Your task to perform on an android device: Add acer predator to the cart on target Image 0: 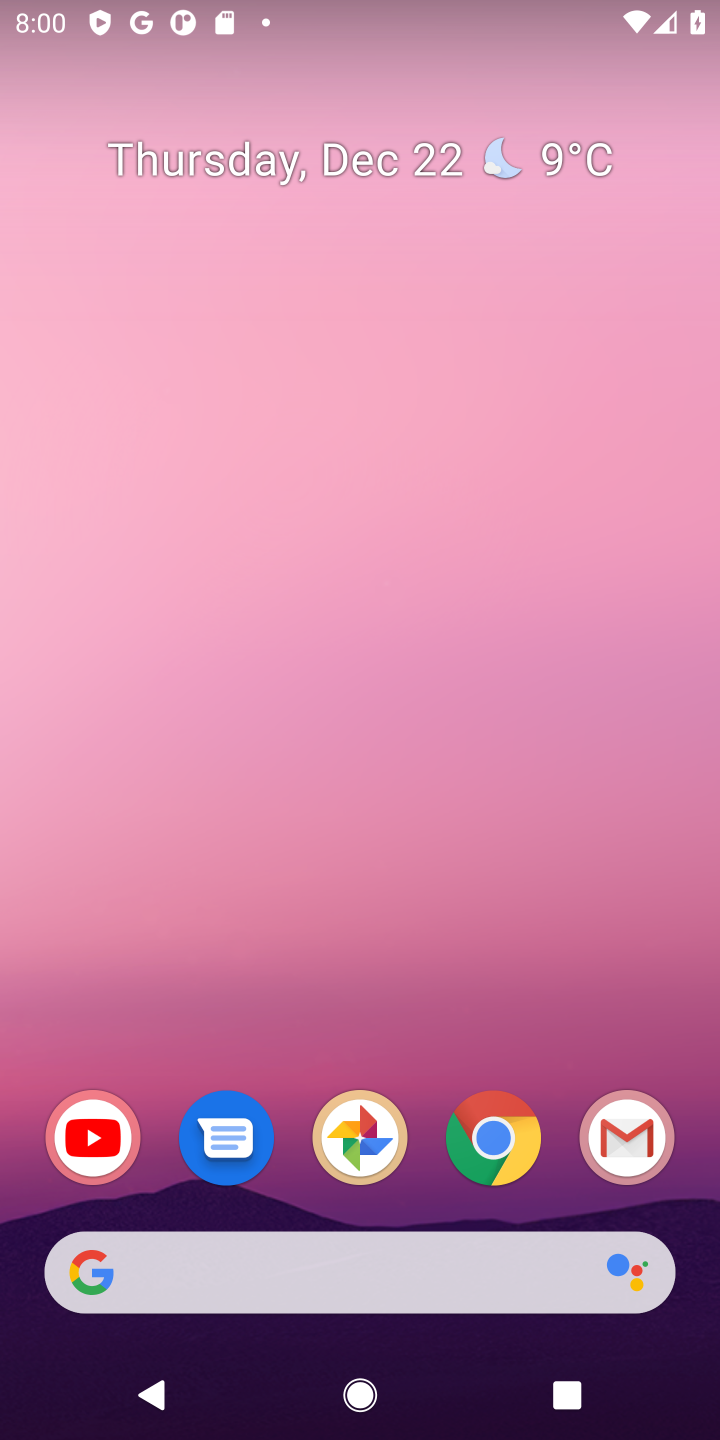
Step 0: press home button
Your task to perform on an android device: Add acer predator to the cart on target Image 1: 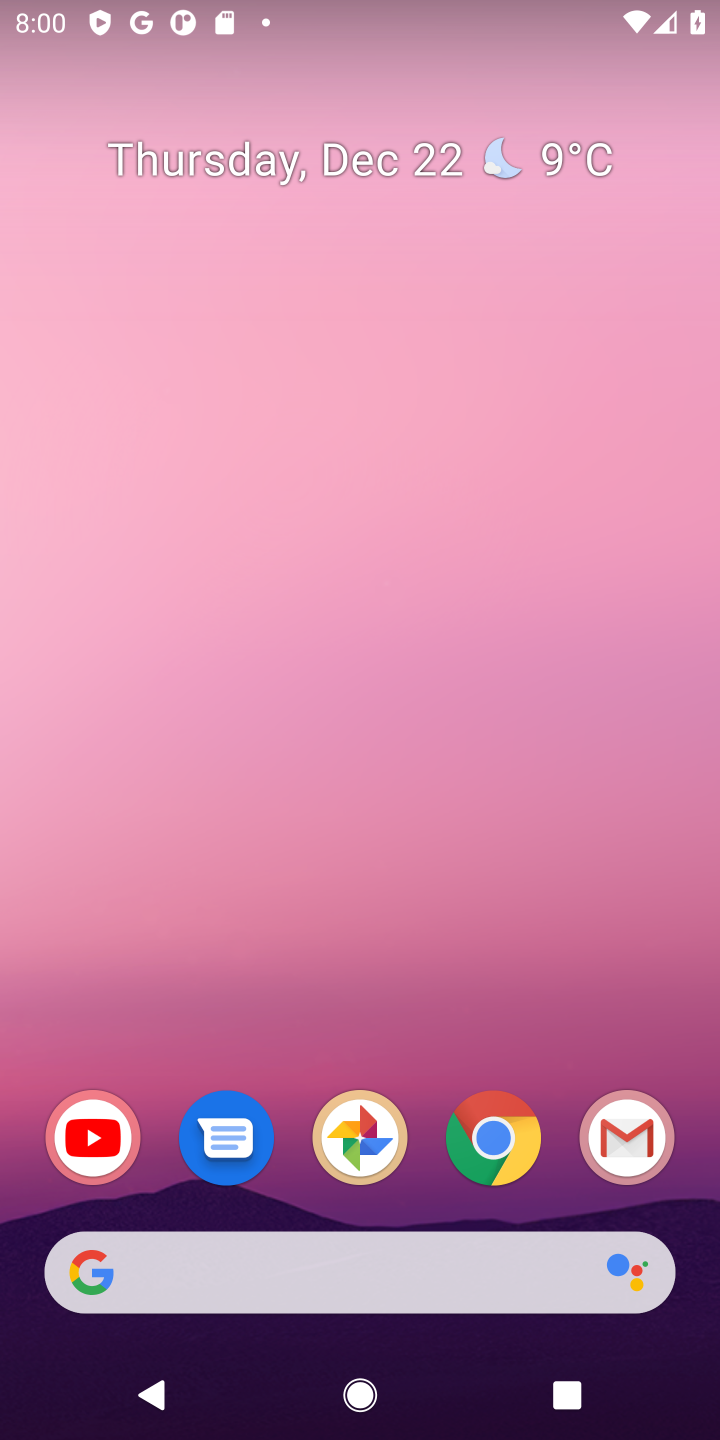
Step 1: click (523, 1145)
Your task to perform on an android device: Add acer predator to the cart on target Image 2: 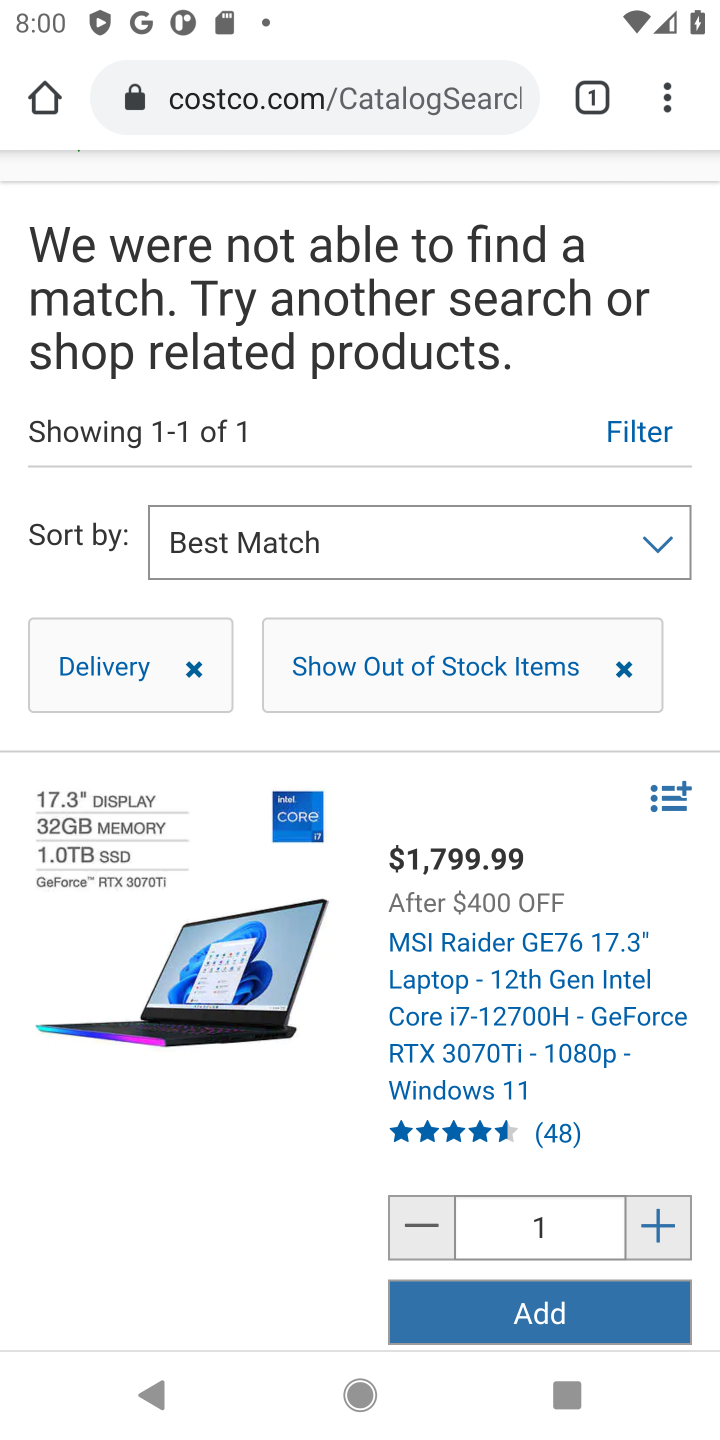
Step 2: click (269, 93)
Your task to perform on an android device: Add acer predator to the cart on target Image 3: 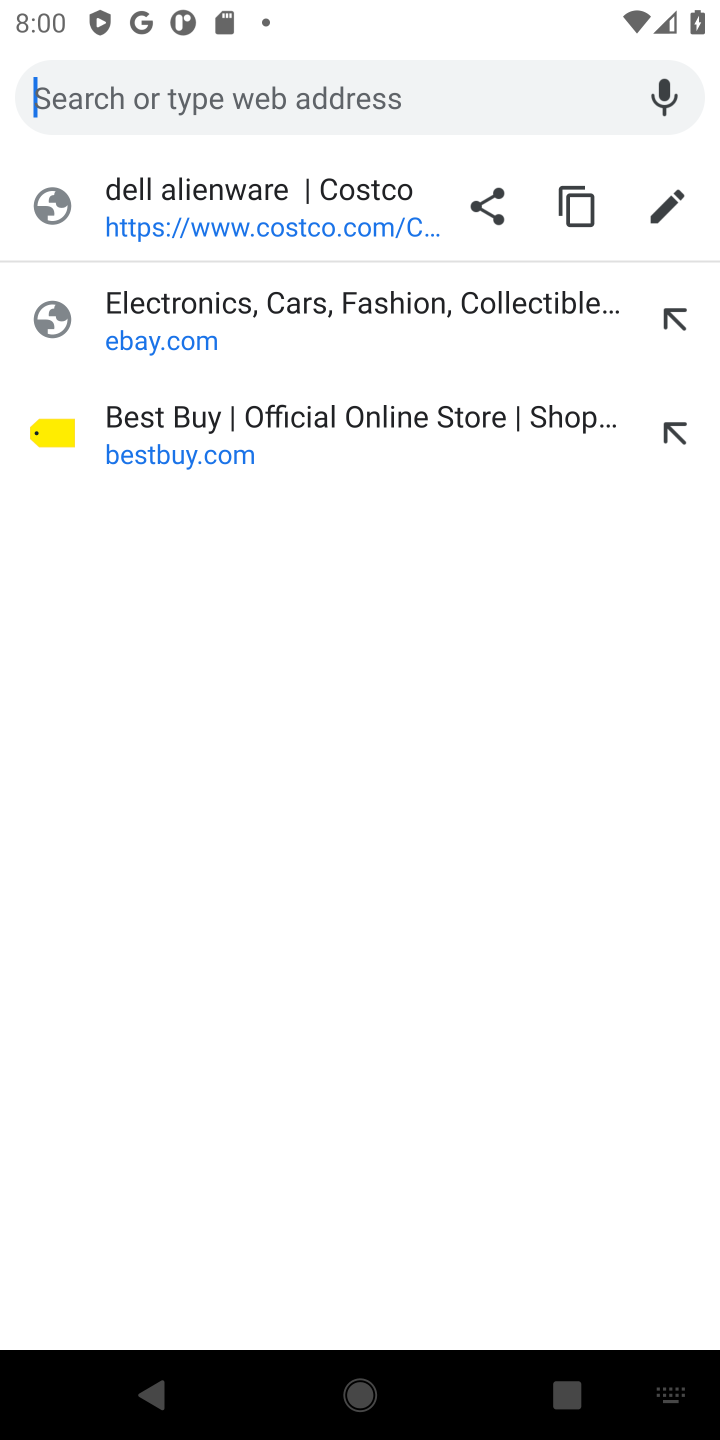
Step 3: type "target"
Your task to perform on an android device: Add acer predator to the cart on target Image 4: 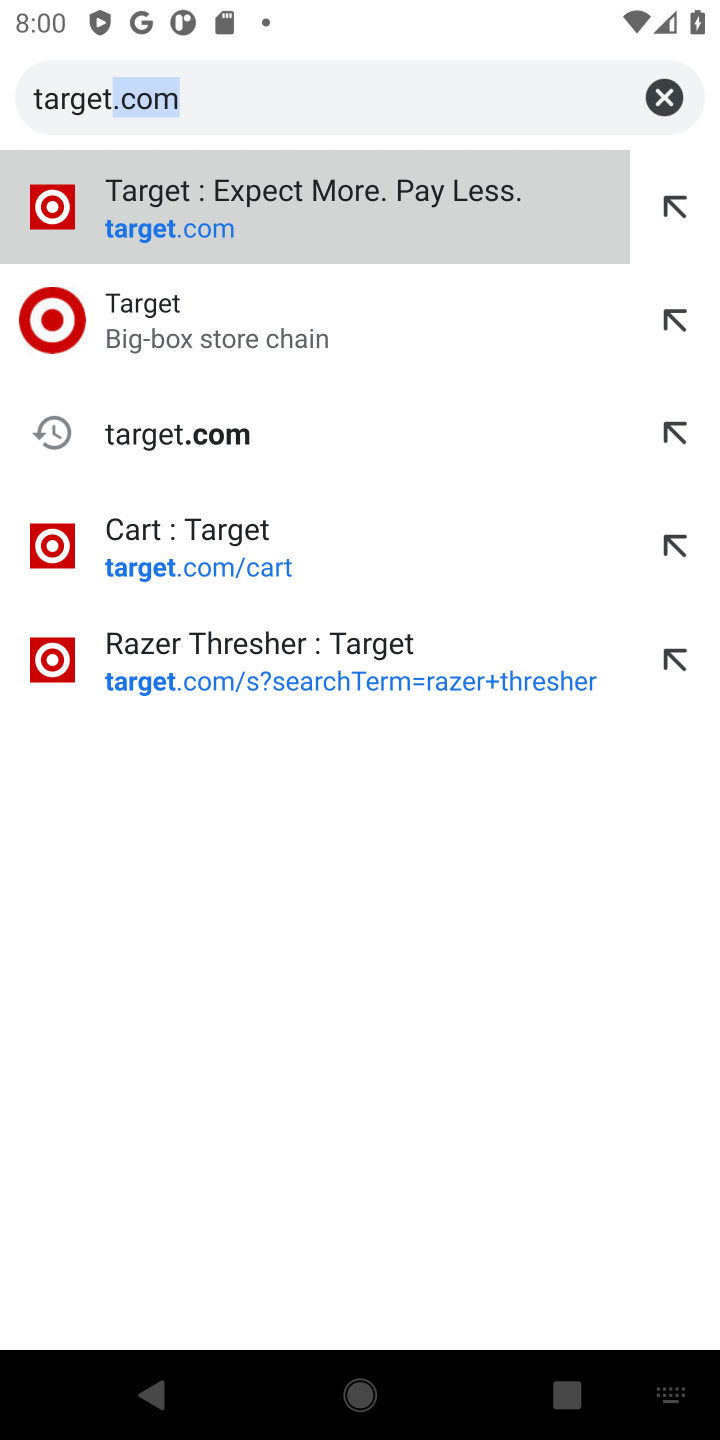
Step 4: click (293, 197)
Your task to perform on an android device: Add acer predator to the cart on target Image 5: 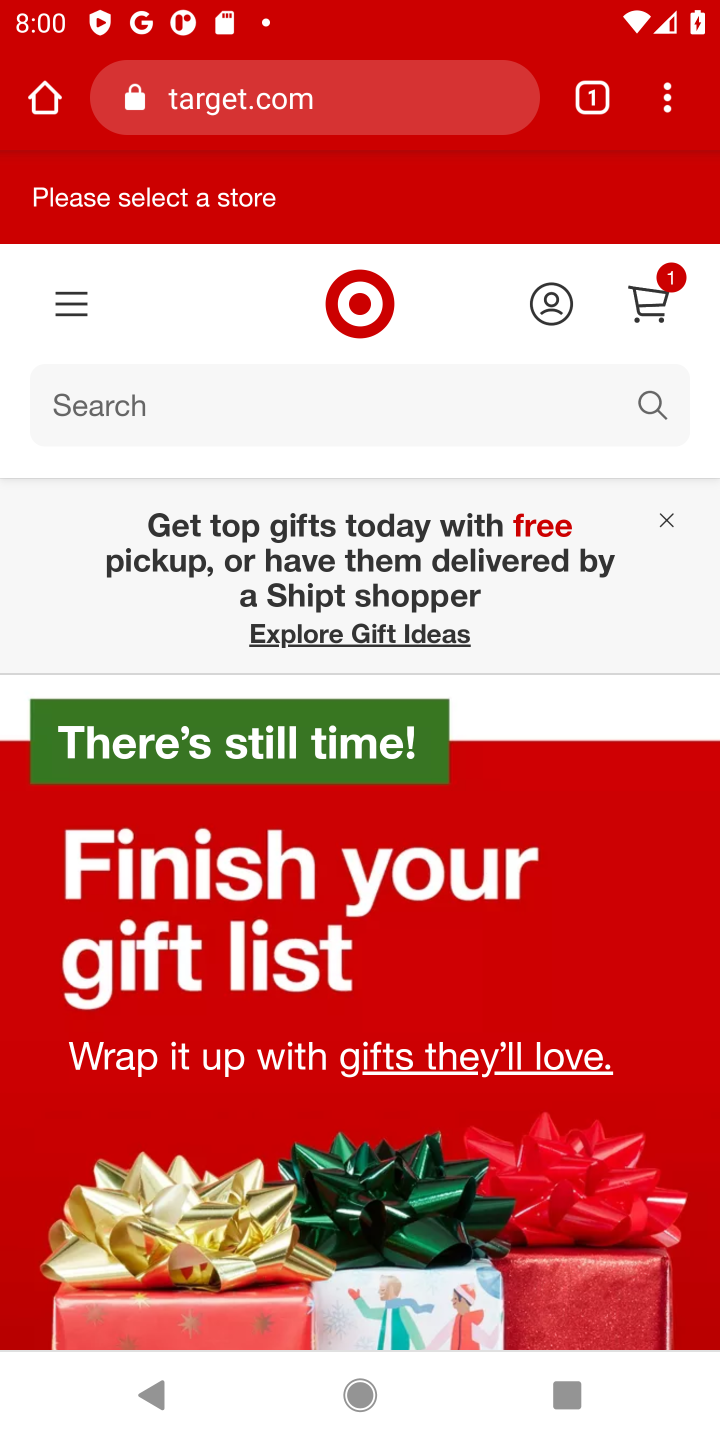
Step 5: click (243, 417)
Your task to perform on an android device: Add acer predator to the cart on target Image 6: 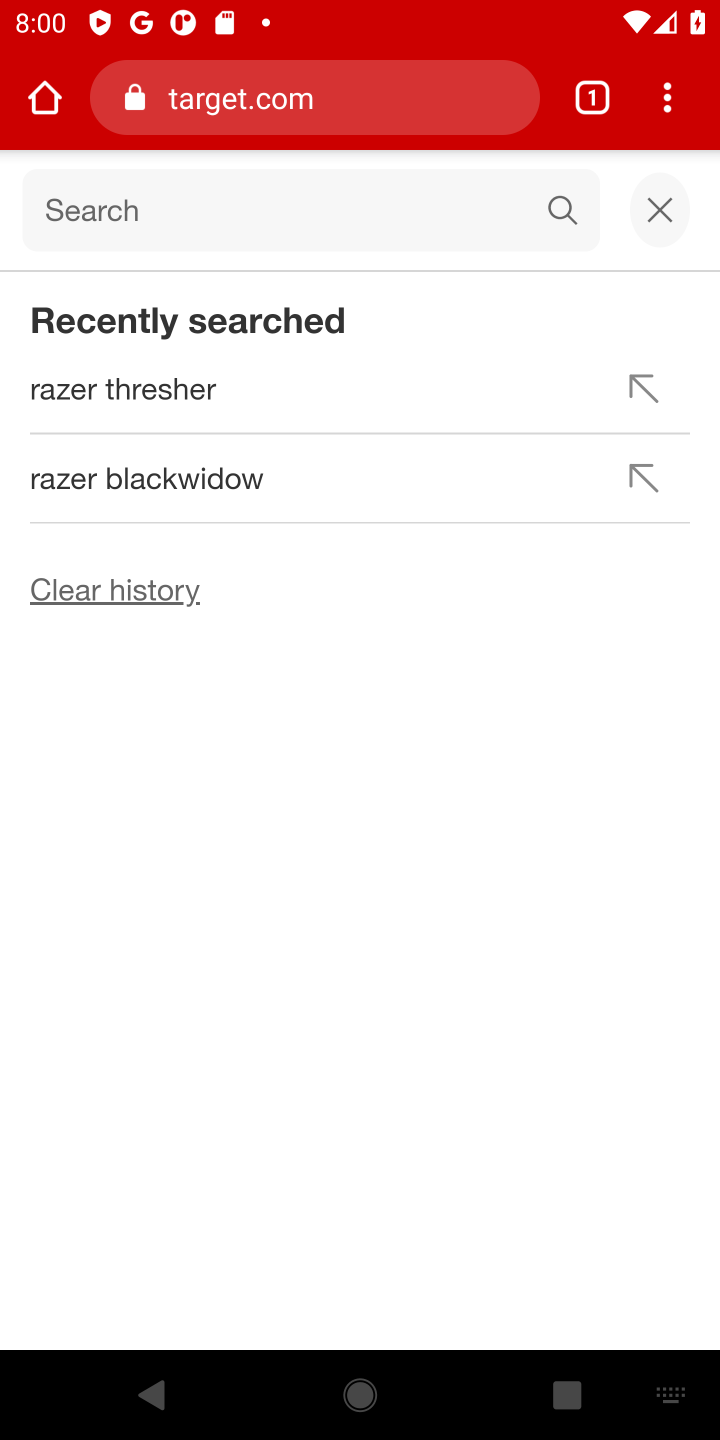
Step 6: type "acer predator"
Your task to perform on an android device: Add acer predator to the cart on target Image 7: 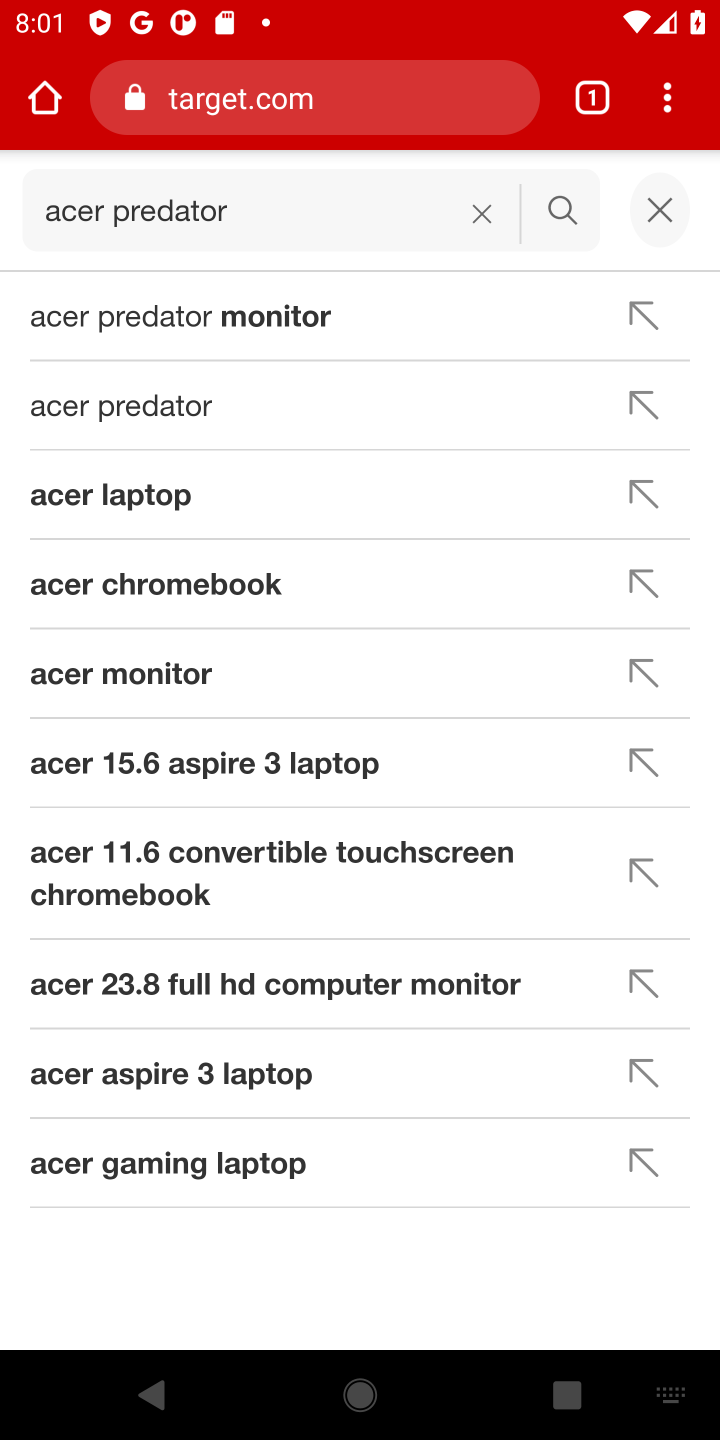
Step 7: click (561, 207)
Your task to perform on an android device: Add acer predator to the cart on target Image 8: 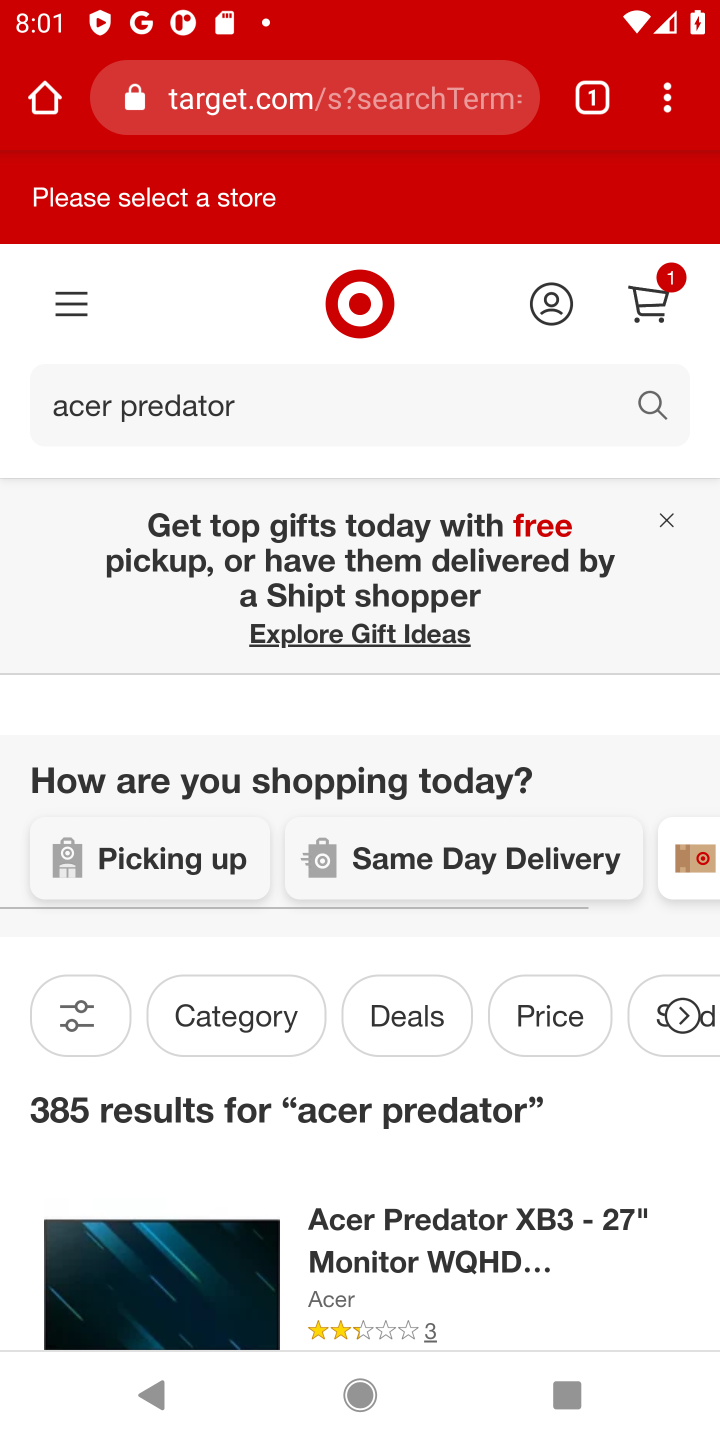
Step 8: drag from (579, 1125) to (535, 599)
Your task to perform on an android device: Add acer predator to the cart on target Image 9: 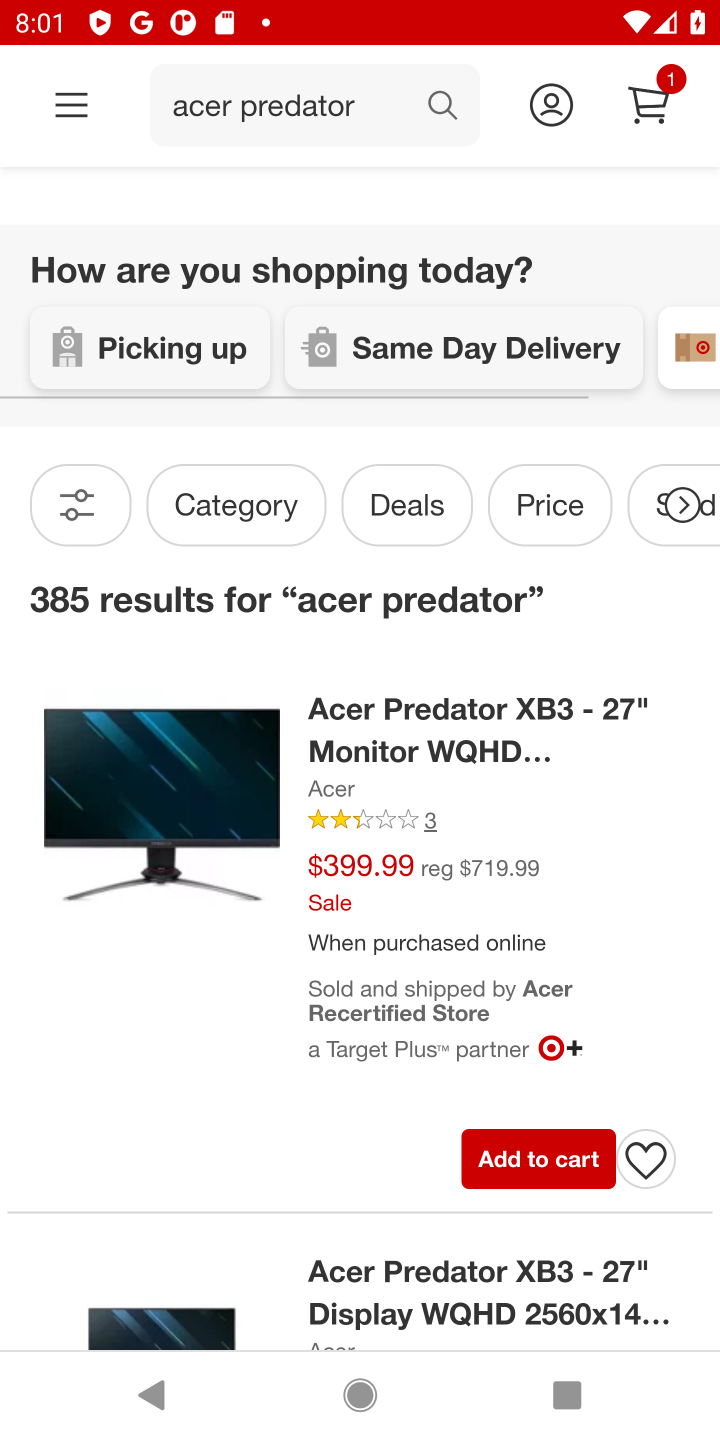
Step 9: click (532, 1172)
Your task to perform on an android device: Add acer predator to the cart on target Image 10: 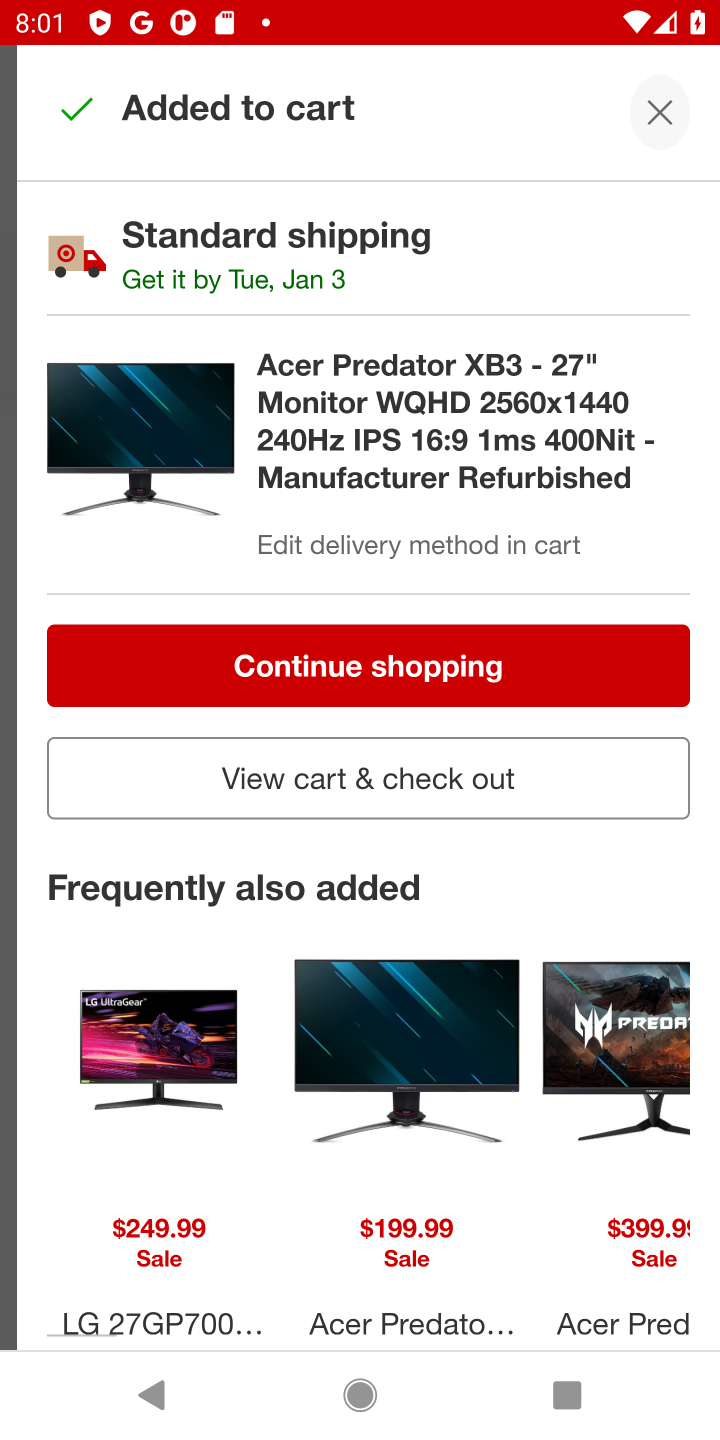
Step 10: click (427, 797)
Your task to perform on an android device: Add acer predator to the cart on target Image 11: 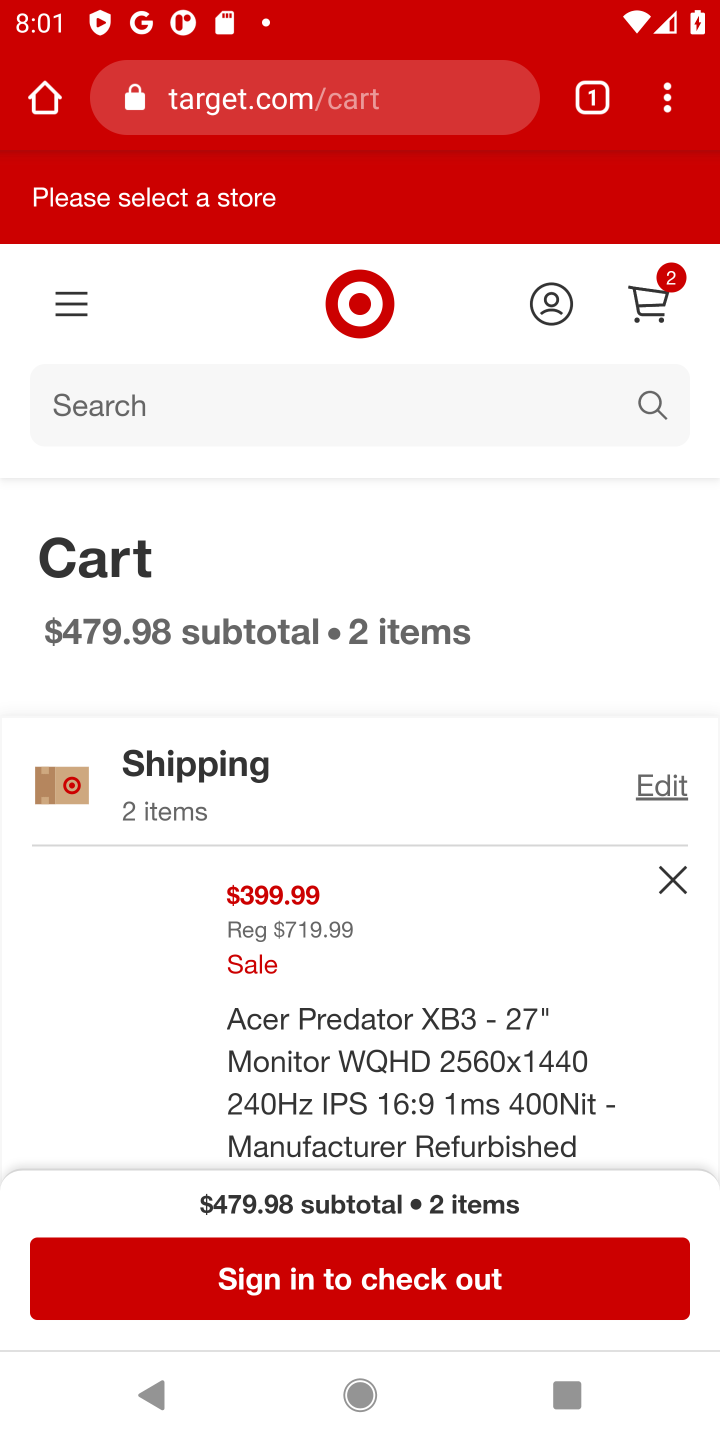
Step 11: task complete